Your task to perform on an android device: turn on sleep mode Image 0: 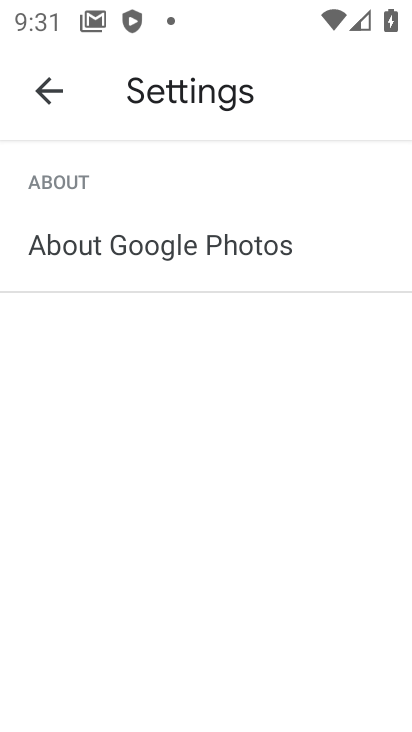
Step 0: click (41, 104)
Your task to perform on an android device: turn on sleep mode Image 1: 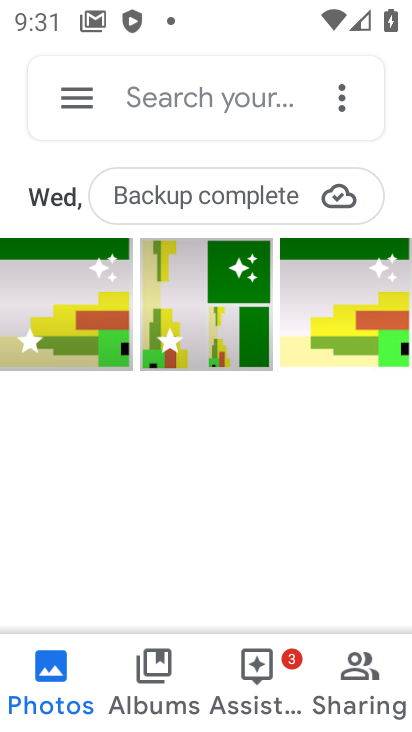
Step 1: press home button
Your task to perform on an android device: turn on sleep mode Image 2: 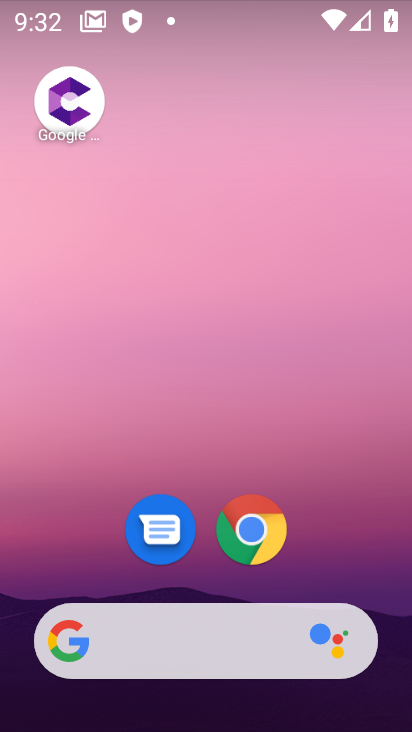
Step 2: drag from (380, 460) to (399, 314)
Your task to perform on an android device: turn on sleep mode Image 3: 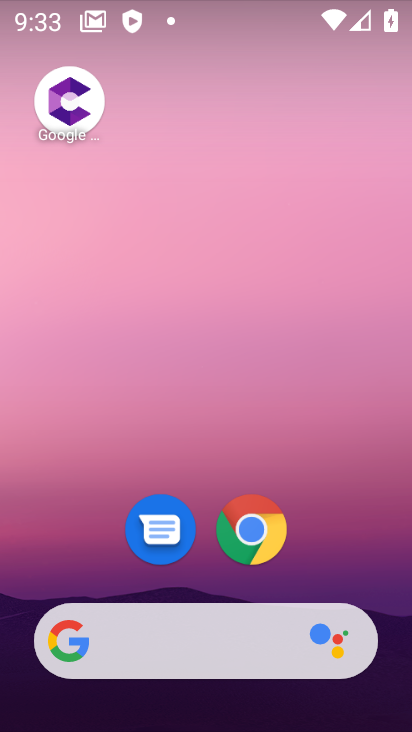
Step 3: drag from (408, 588) to (410, 122)
Your task to perform on an android device: turn on sleep mode Image 4: 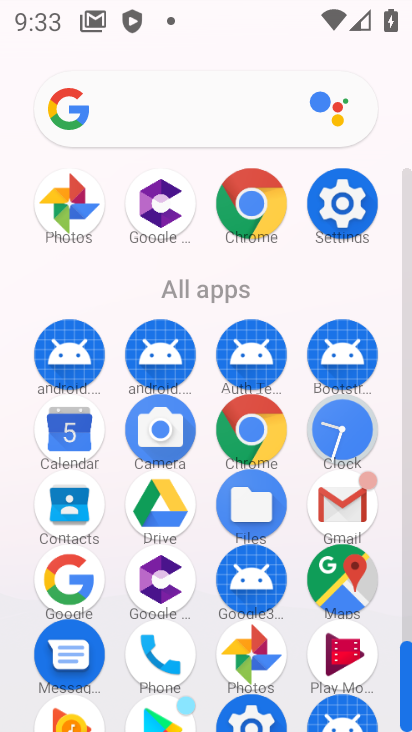
Step 4: click (354, 222)
Your task to perform on an android device: turn on sleep mode Image 5: 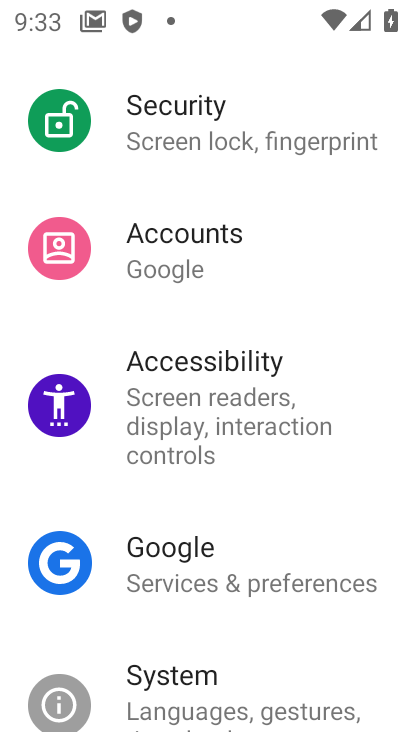
Step 5: drag from (263, 237) to (207, 585)
Your task to perform on an android device: turn on sleep mode Image 6: 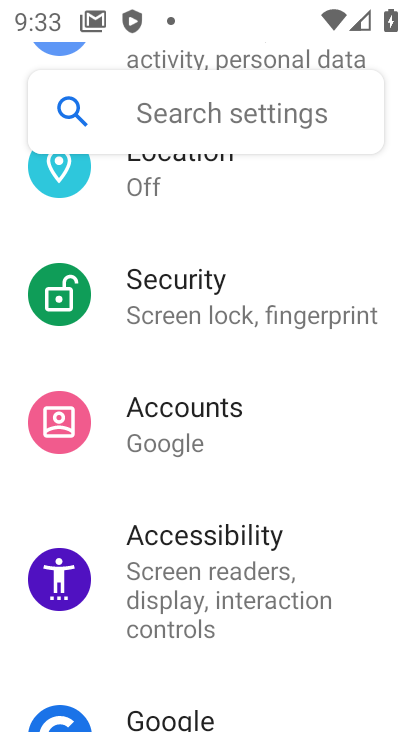
Step 6: drag from (305, 279) to (278, 678)
Your task to perform on an android device: turn on sleep mode Image 7: 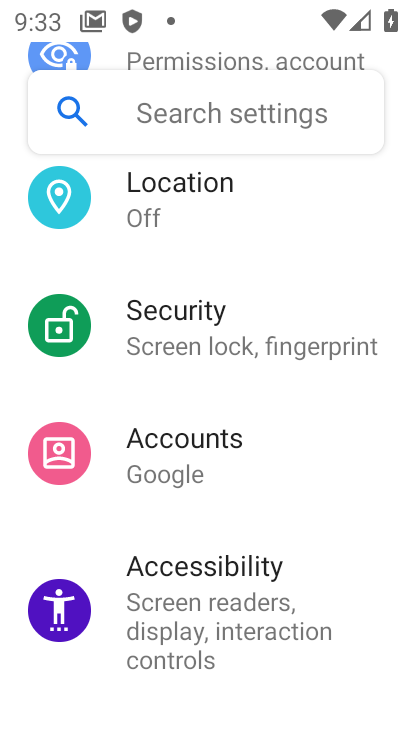
Step 7: drag from (376, 227) to (332, 513)
Your task to perform on an android device: turn on sleep mode Image 8: 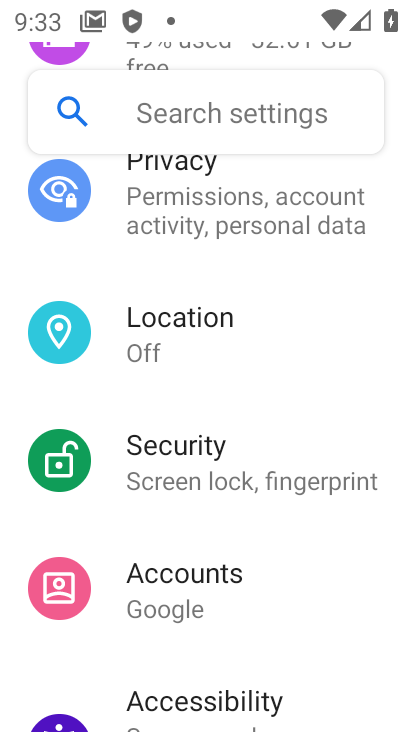
Step 8: drag from (295, 472) to (283, 617)
Your task to perform on an android device: turn on sleep mode Image 9: 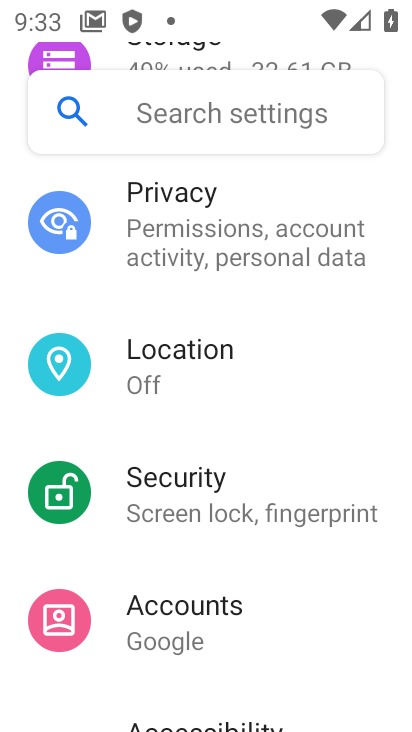
Step 9: drag from (311, 217) to (284, 696)
Your task to perform on an android device: turn on sleep mode Image 10: 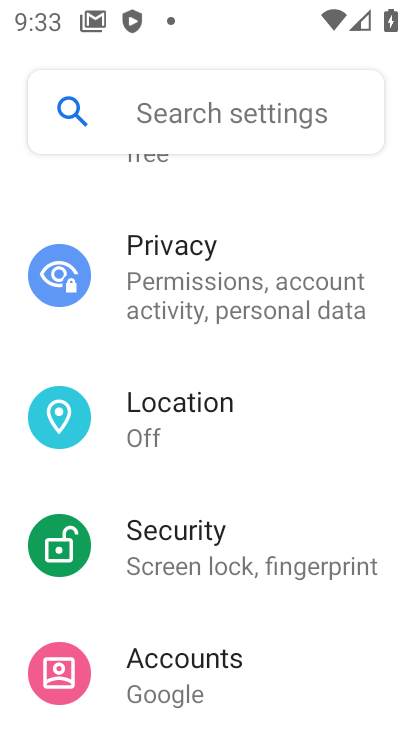
Step 10: click (328, 655)
Your task to perform on an android device: turn on sleep mode Image 11: 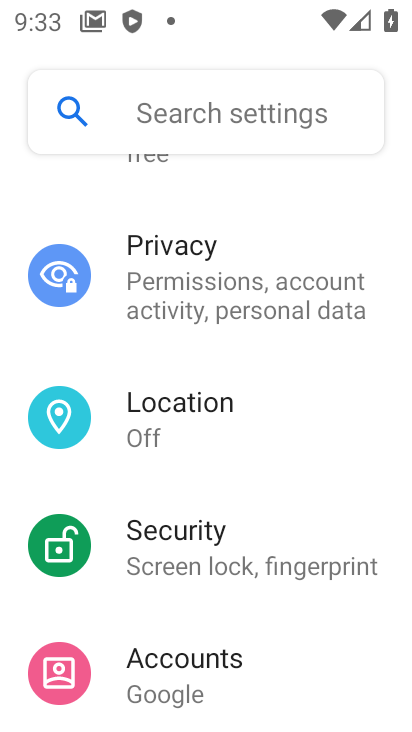
Step 11: drag from (394, 185) to (362, 555)
Your task to perform on an android device: turn on sleep mode Image 12: 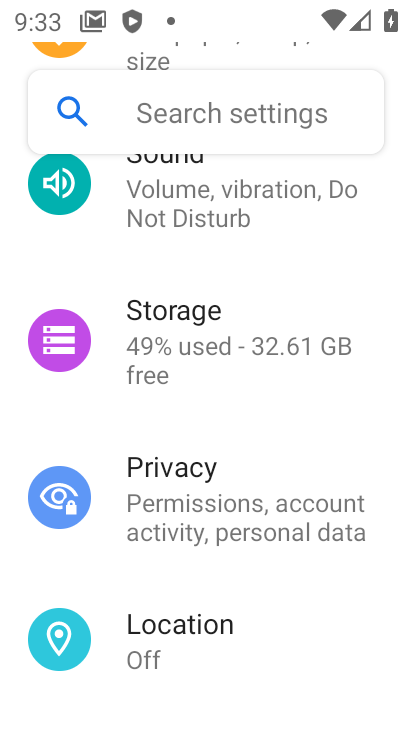
Step 12: drag from (381, 290) to (352, 615)
Your task to perform on an android device: turn on sleep mode Image 13: 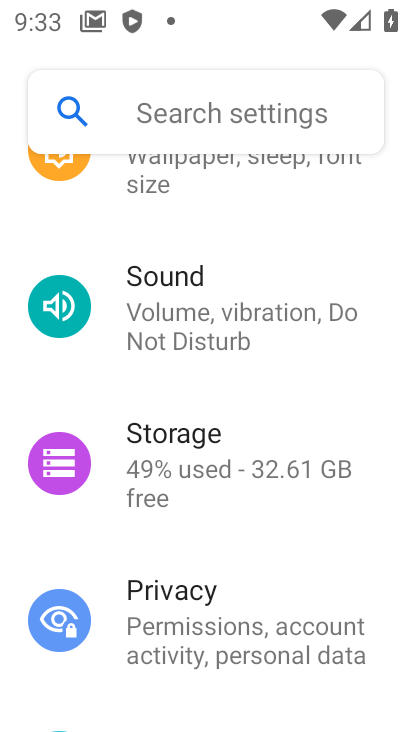
Step 13: click (212, 156)
Your task to perform on an android device: turn on sleep mode Image 14: 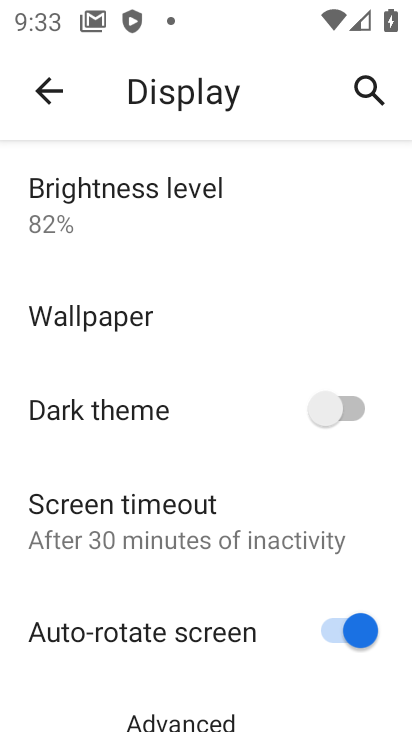
Step 14: drag from (183, 605) to (197, 344)
Your task to perform on an android device: turn on sleep mode Image 15: 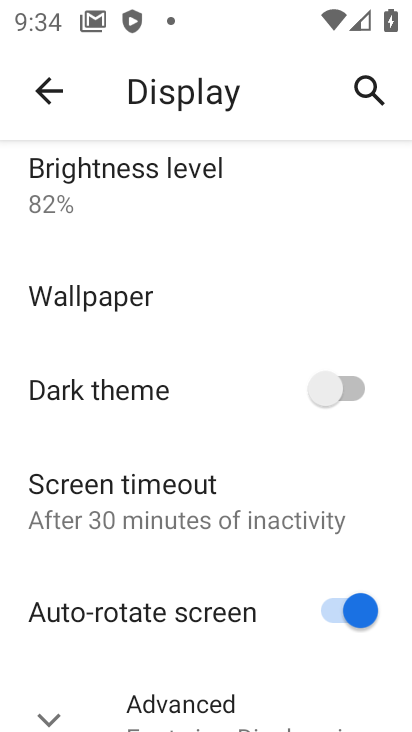
Step 15: click (172, 496)
Your task to perform on an android device: turn on sleep mode Image 16: 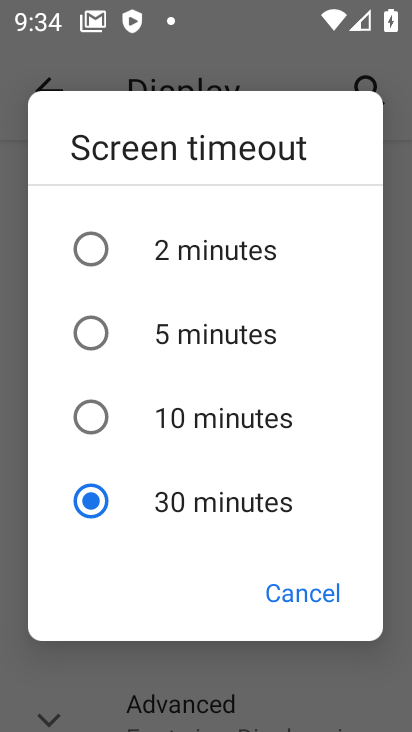
Step 16: task complete